Your task to perform on an android device: Show me popular games on the Play Store Image 0: 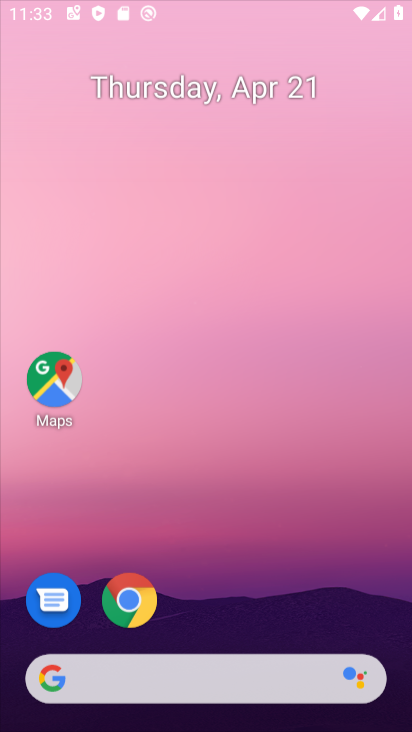
Step 0: click (332, 16)
Your task to perform on an android device: Show me popular games on the Play Store Image 1: 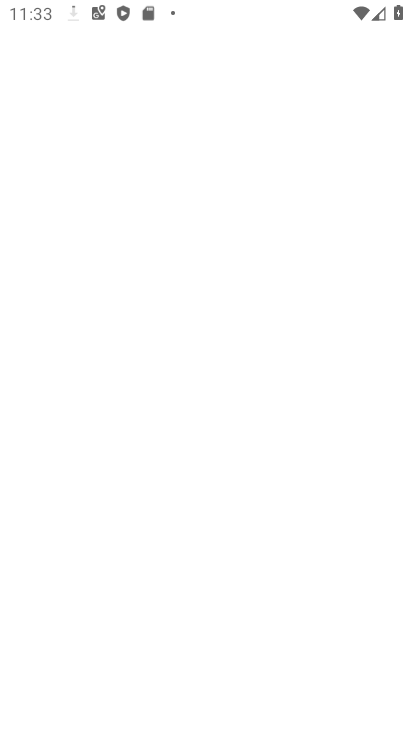
Step 1: press home button
Your task to perform on an android device: Show me popular games on the Play Store Image 2: 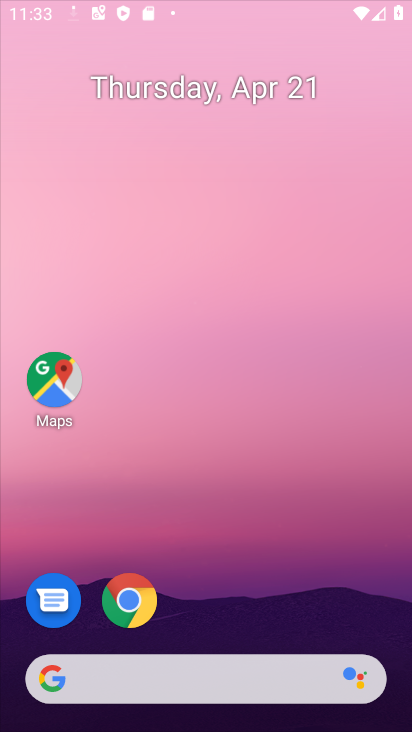
Step 2: press home button
Your task to perform on an android device: Show me popular games on the Play Store Image 3: 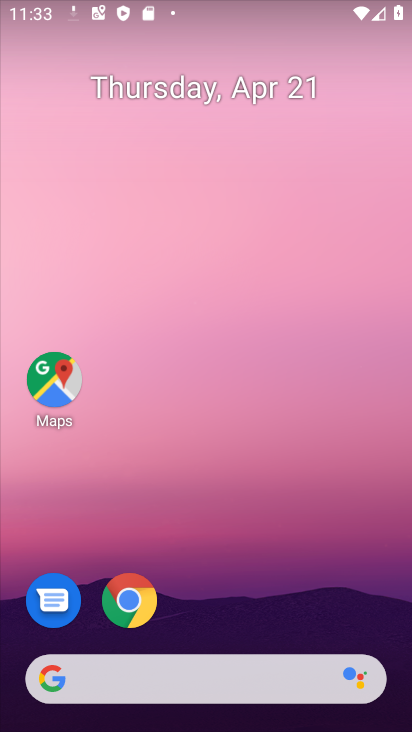
Step 3: drag from (246, 594) to (257, 1)
Your task to perform on an android device: Show me popular games on the Play Store Image 4: 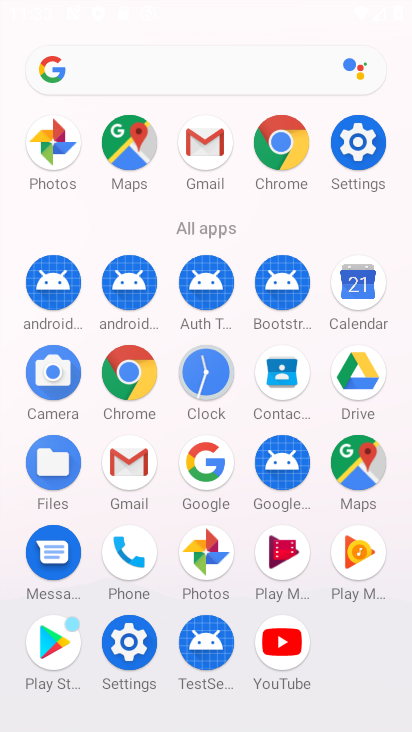
Step 4: click (55, 650)
Your task to perform on an android device: Show me popular games on the Play Store Image 5: 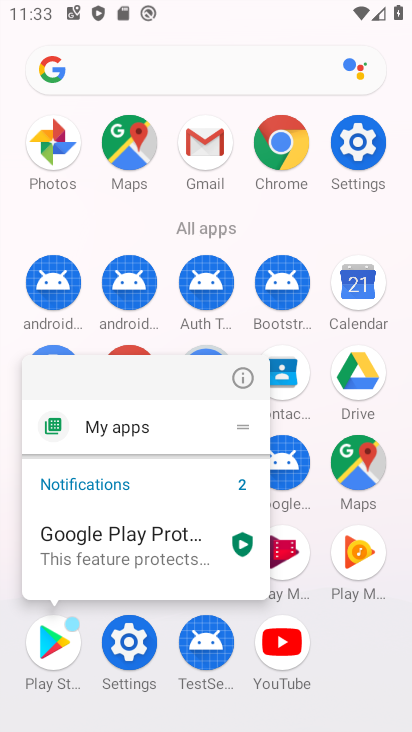
Step 5: click (52, 659)
Your task to perform on an android device: Show me popular games on the Play Store Image 6: 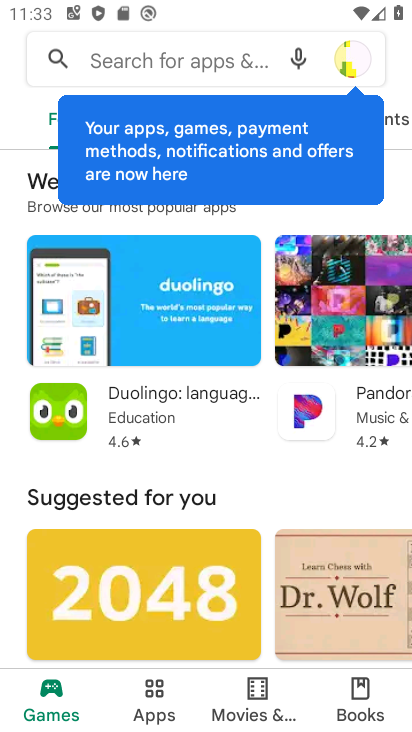
Step 6: drag from (391, 117) to (321, 113)
Your task to perform on an android device: Show me popular games on the Play Store Image 7: 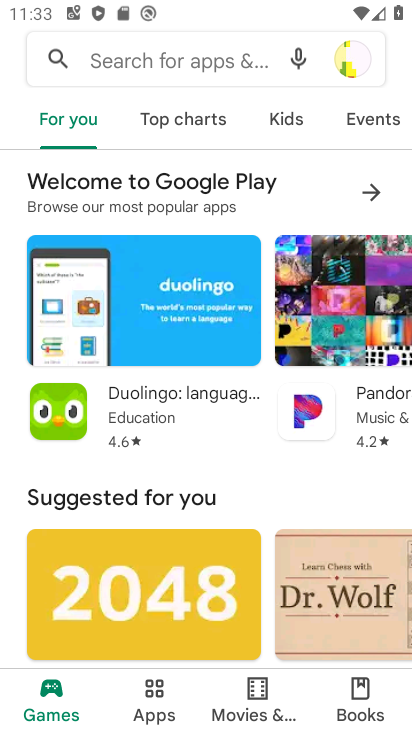
Step 7: drag from (352, 118) to (78, 121)
Your task to perform on an android device: Show me popular games on the Play Store Image 8: 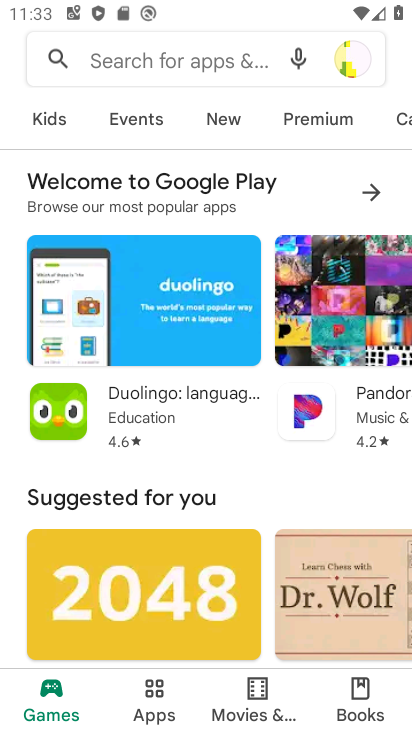
Step 8: drag from (329, 119) to (0, 111)
Your task to perform on an android device: Show me popular games on the Play Store Image 9: 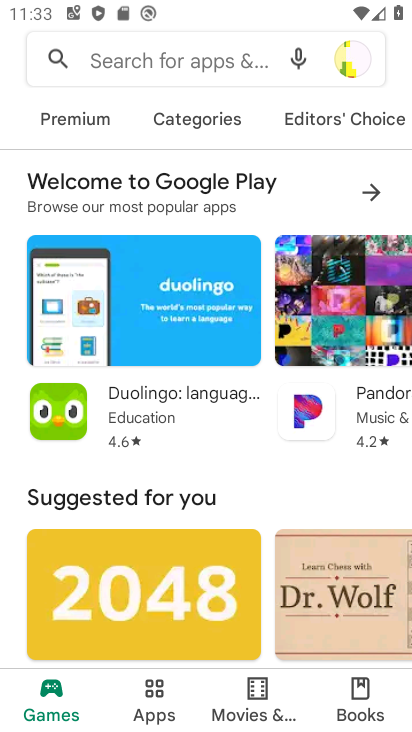
Step 9: drag from (346, 130) to (2, 147)
Your task to perform on an android device: Show me popular games on the Play Store Image 10: 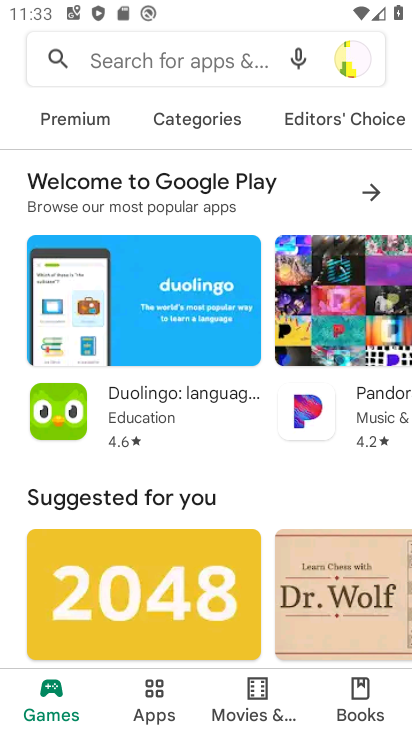
Step 10: click (181, 127)
Your task to perform on an android device: Show me popular games on the Play Store Image 11: 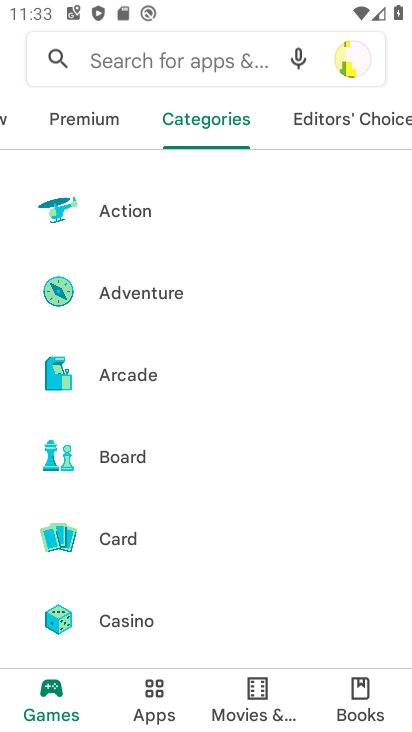
Step 11: drag from (140, 638) to (200, 221)
Your task to perform on an android device: Show me popular games on the Play Store Image 12: 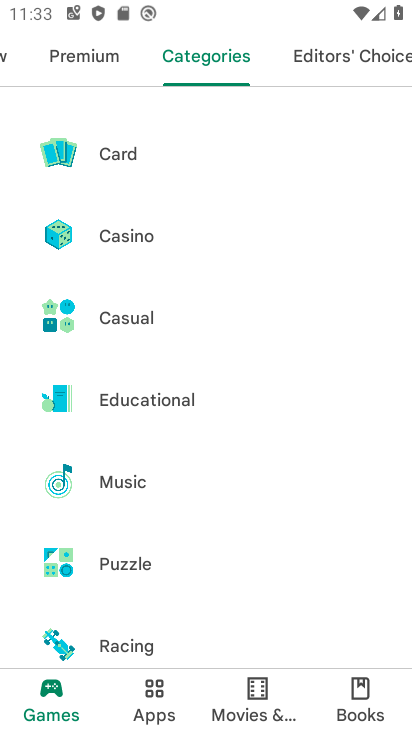
Step 12: drag from (159, 576) to (226, 128)
Your task to perform on an android device: Show me popular games on the Play Store Image 13: 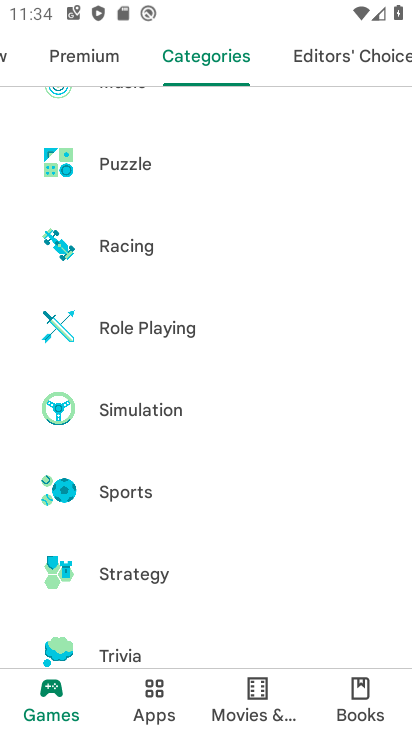
Step 13: drag from (146, 591) to (235, 174)
Your task to perform on an android device: Show me popular games on the Play Store Image 14: 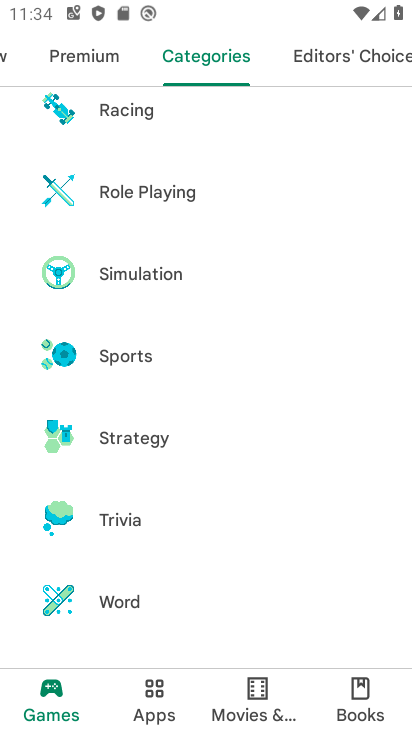
Step 14: drag from (129, 594) to (187, 228)
Your task to perform on an android device: Show me popular games on the Play Store Image 15: 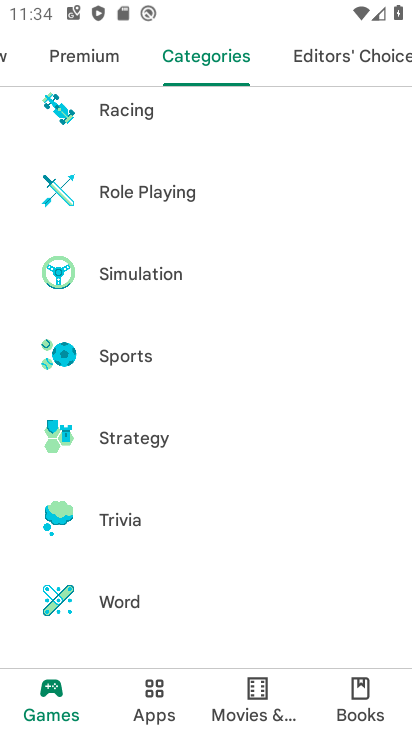
Step 15: drag from (189, 175) to (140, 721)
Your task to perform on an android device: Show me popular games on the Play Store Image 16: 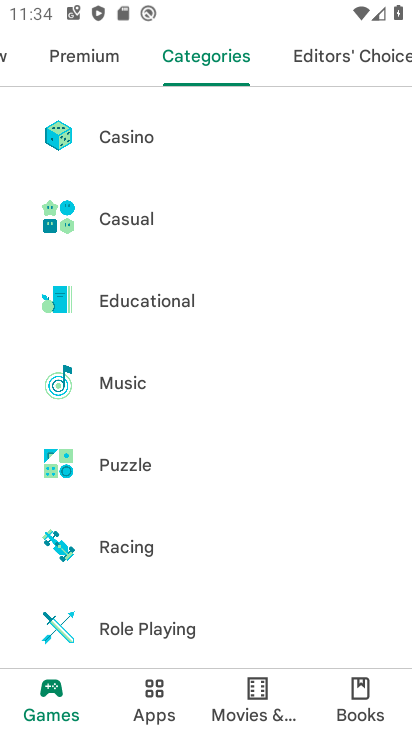
Step 16: drag from (75, 126) to (74, 720)
Your task to perform on an android device: Show me popular games on the Play Store Image 17: 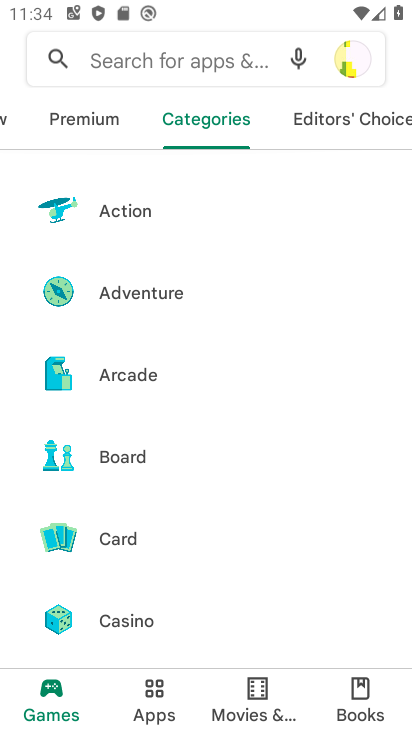
Step 17: drag from (138, 280) to (123, 698)
Your task to perform on an android device: Show me popular games on the Play Store Image 18: 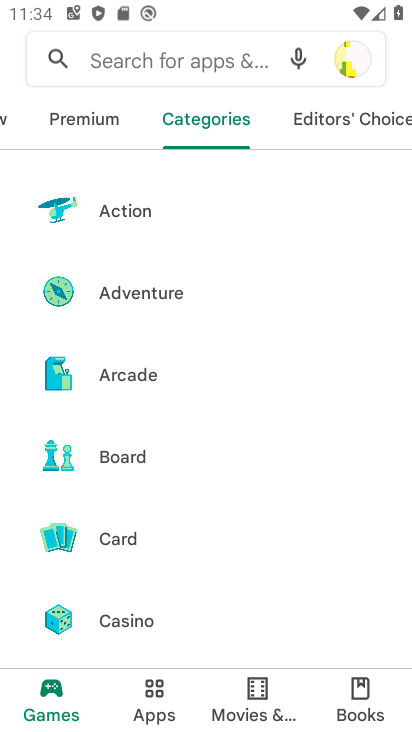
Step 18: drag from (71, 117) to (404, 129)
Your task to perform on an android device: Show me popular games on the Play Store Image 19: 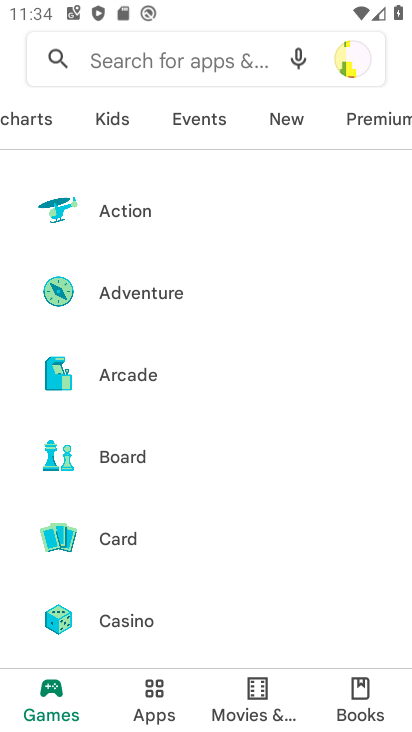
Step 19: drag from (131, 112) to (408, 110)
Your task to perform on an android device: Show me popular games on the Play Store Image 20: 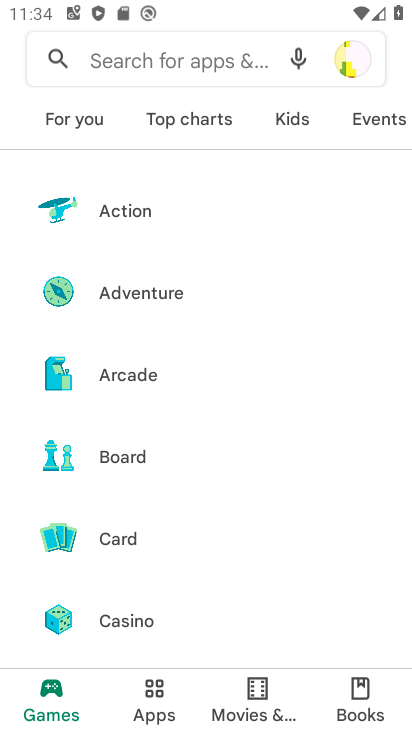
Step 20: click (203, 124)
Your task to perform on an android device: Show me popular games on the Play Store Image 21: 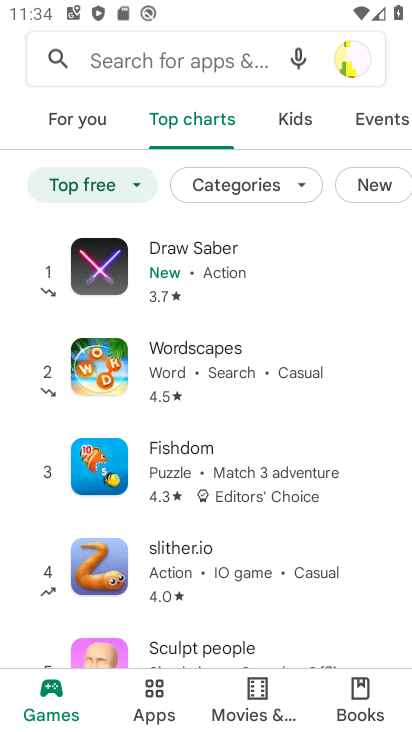
Step 21: task complete